Your task to perform on an android device: turn notification dots on Image 0: 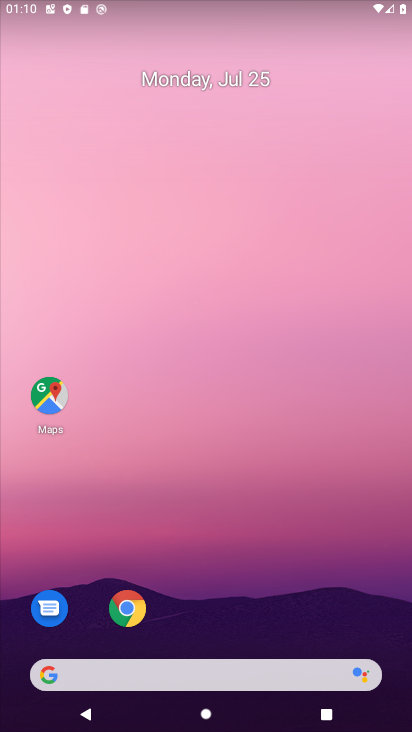
Step 0: press home button
Your task to perform on an android device: turn notification dots on Image 1: 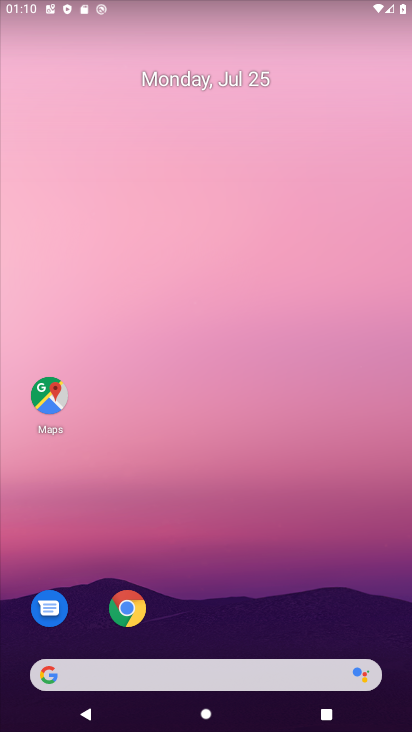
Step 1: drag from (224, 670) to (249, 481)
Your task to perform on an android device: turn notification dots on Image 2: 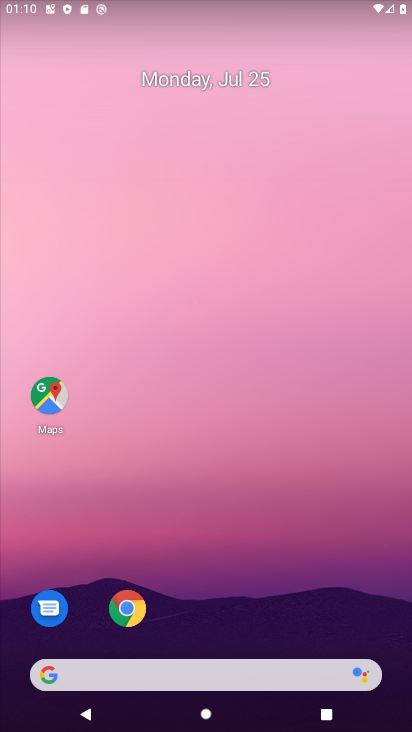
Step 2: drag from (213, 651) to (167, 149)
Your task to perform on an android device: turn notification dots on Image 3: 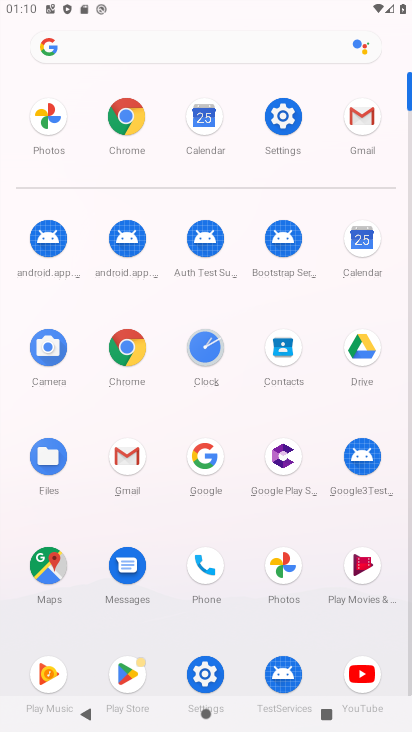
Step 3: click (268, 115)
Your task to perform on an android device: turn notification dots on Image 4: 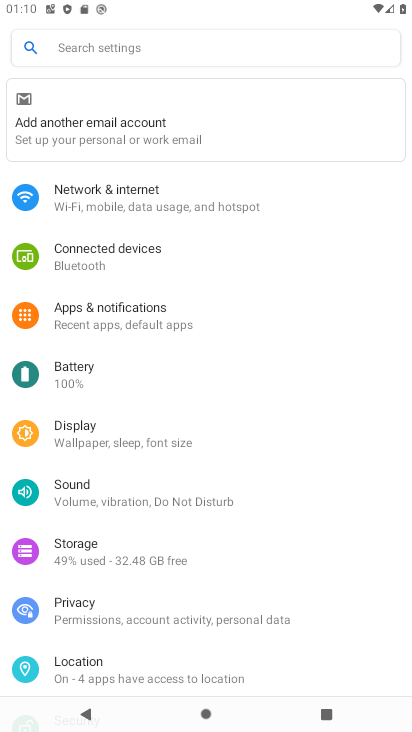
Step 4: click (147, 305)
Your task to perform on an android device: turn notification dots on Image 5: 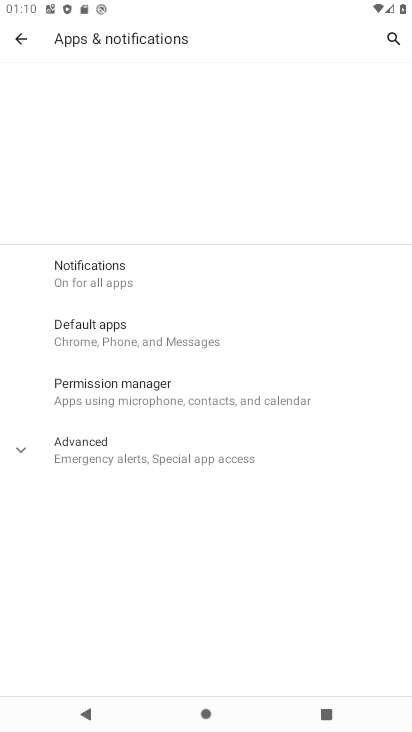
Step 5: click (138, 270)
Your task to perform on an android device: turn notification dots on Image 6: 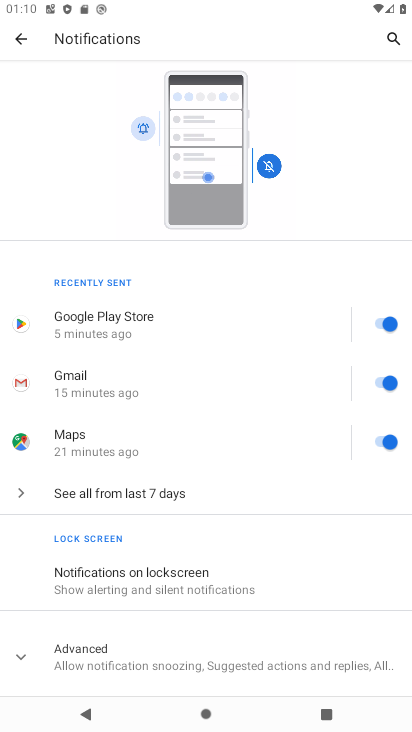
Step 6: drag from (315, 592) to (283, 238)
Your task to perform on an android device: turn notification dots on Image 7: 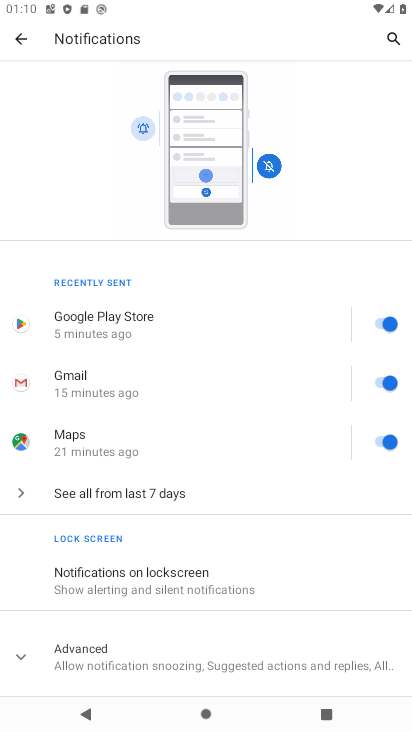
Step 7: click (168, 651)
Your task to perform on an android device: turn notification dots on Image 8: 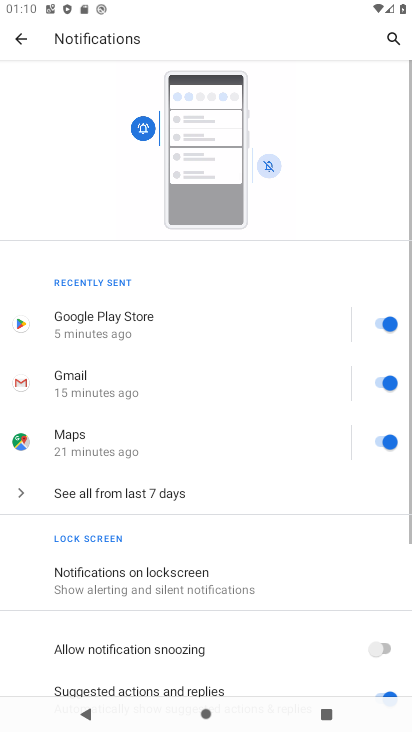
Step 8: task complete